Your task to perform on an android device: Set the phone to "Do not disturb". Image 0: 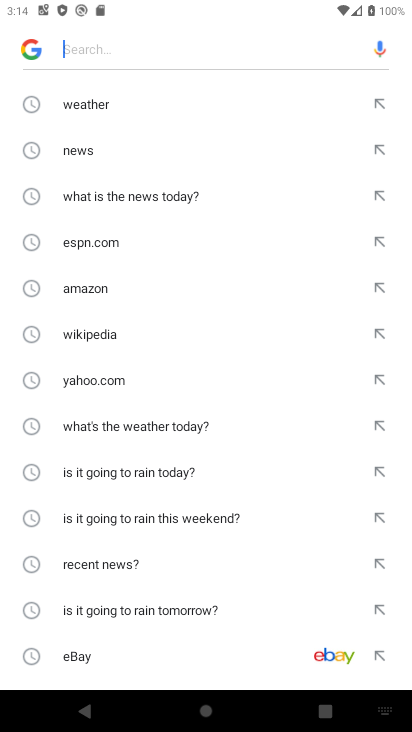
Step 0: press back button
Your task to perform on an android device: Set the phone to "Do not disturb". Image 1: 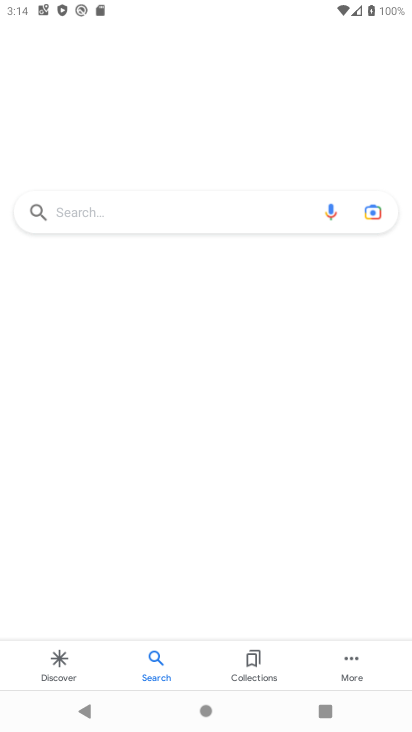
Step 1: press home button
Your task to perform on an android device: Set the phone to "Do not disturb". Image 2: 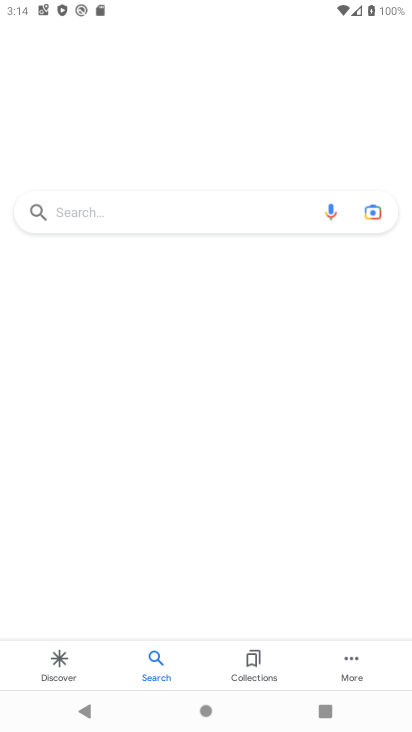
Step 2: press home button
Your task to perform on an android device: Set the phone to "Do not disturb". Image 3: 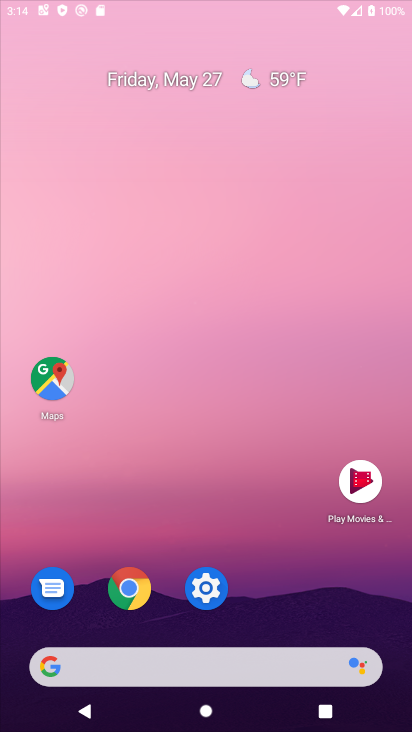
Step 3: press home button
Your task to perform on an android device: Set the phone to "Do not disturb". Image 4: 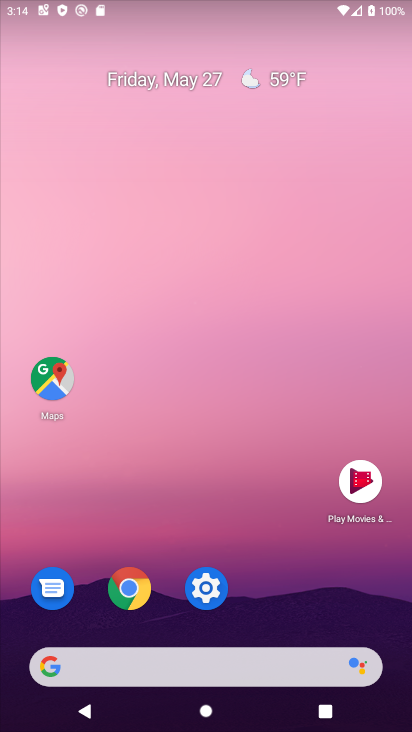
Step 4: press home button
Your task to perform on an android device: Set the phone to "Do not disturb". Image 5: 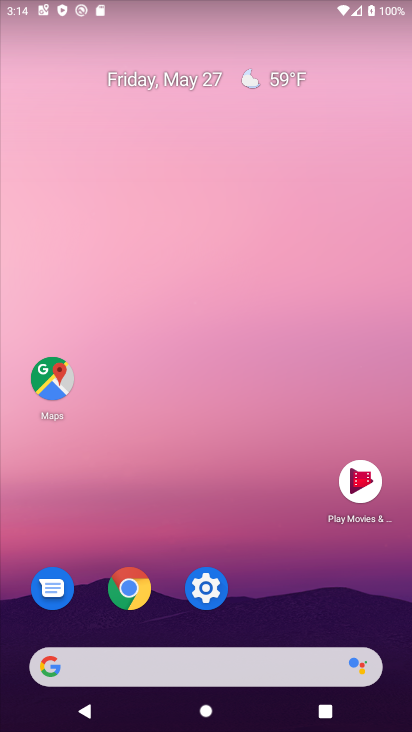
Step 5: drag from (211, 495) to (113, 84)
Your task to perform on an android device: Set the phone to "Do not disturb". Image 6: 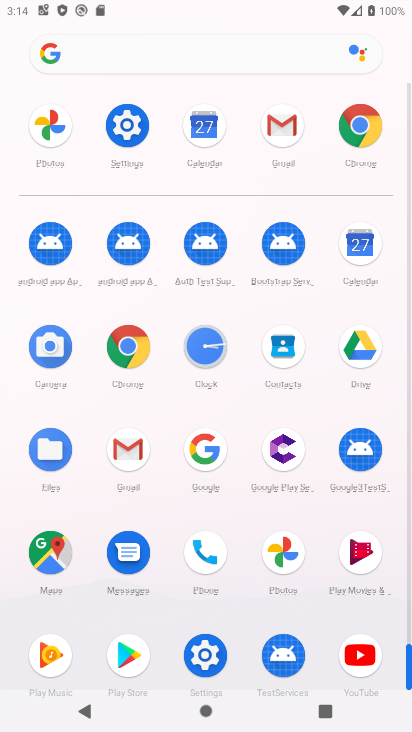
Step 6: click (127, 142)
Your task to perform on an android device: Set the phone to "Do not disturb". Image 7: 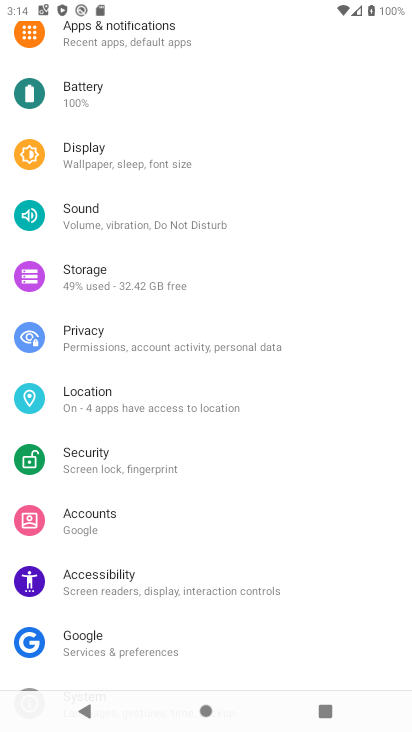
Step 7: press back button
Your task to perform on an android device: Set the phone to "Do not disturb". Image 8: 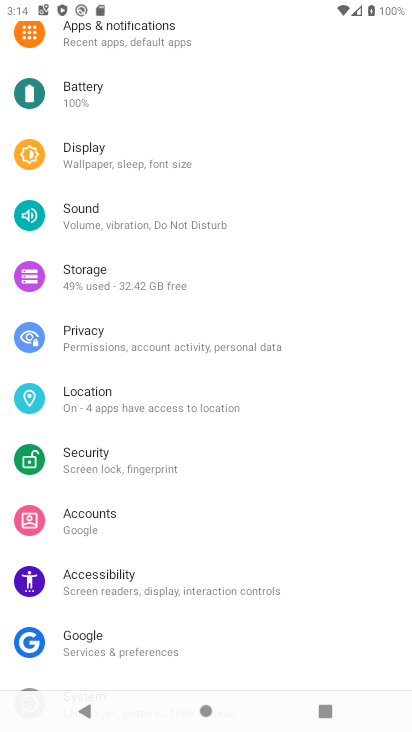
Step 8: press back button
Your task to perform on an android device: Set the phone to "Do not disturb". Image 9: 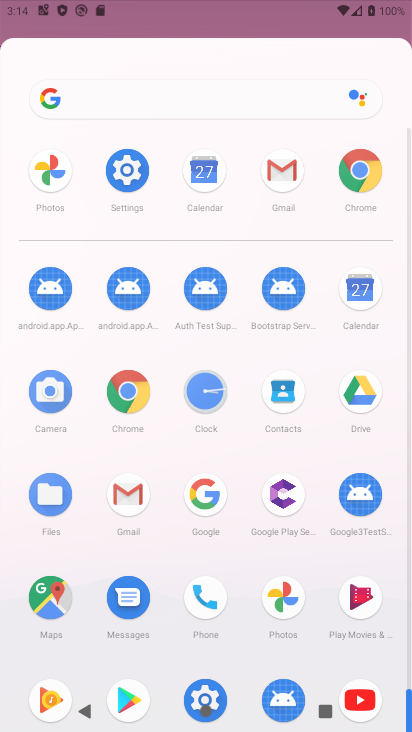
Step 9: press back button
Your task to perform on an android device: Set the phone to "Do not disturb". Image 10: 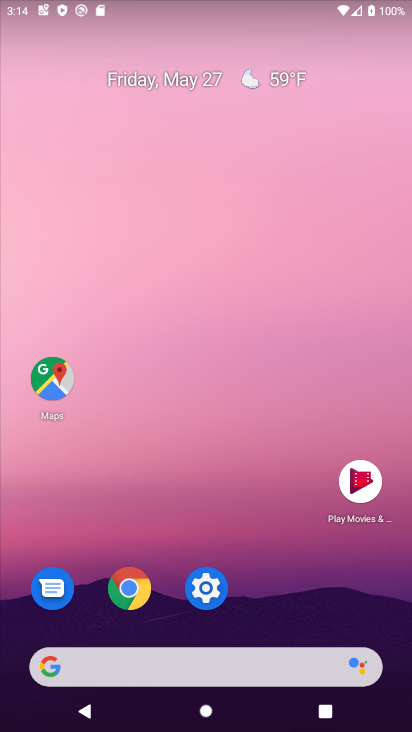
Step 10: drag from (221, 245) to (155, 11)
Your task to perform on an android device: Set the phone to "Do not disturb". Image 11: 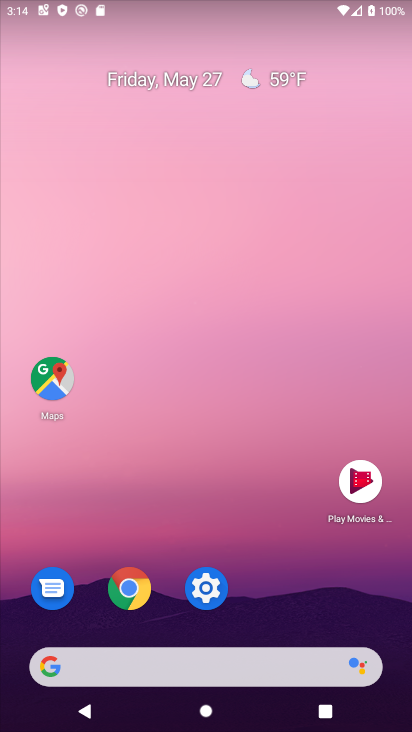
Step 11: drag from (135, 139) to (102, 9)
Your task to perform on an android device: Set the phone to "Do not disturb". Image 12: 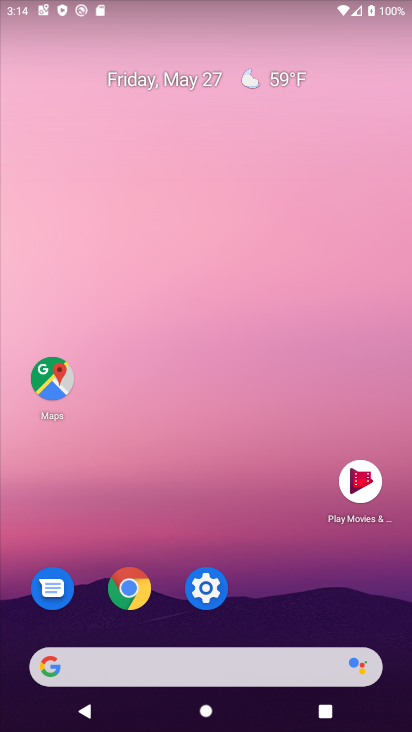
Step 12: drag from (197, 304) to (110, 62)
Your task to perform on an android device: Set the phone to "Do not disturb". Image 13: 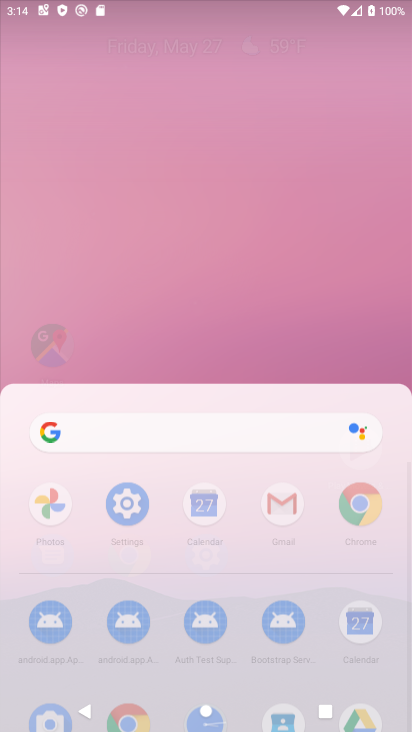
Step 13: drag from (214, 462) to (88, 14)
Your task to perform on an android device: Set the phone to "Do not disturb". Image 14: 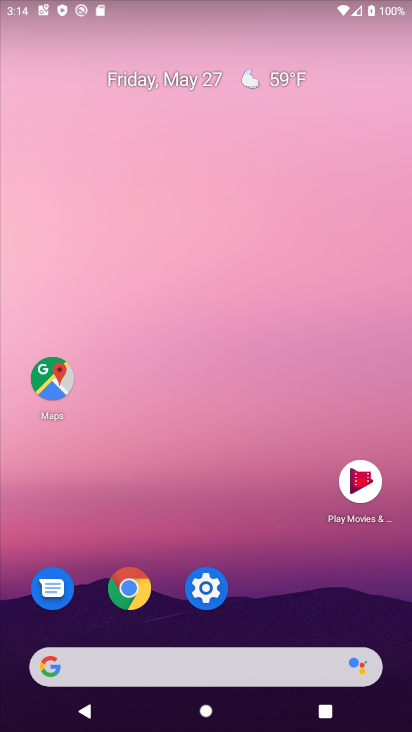
Step 14: drag from (163, 168) to (72, 0)
Your task to perform on an android device: Set the phone to "Do not disturb". Image 15: 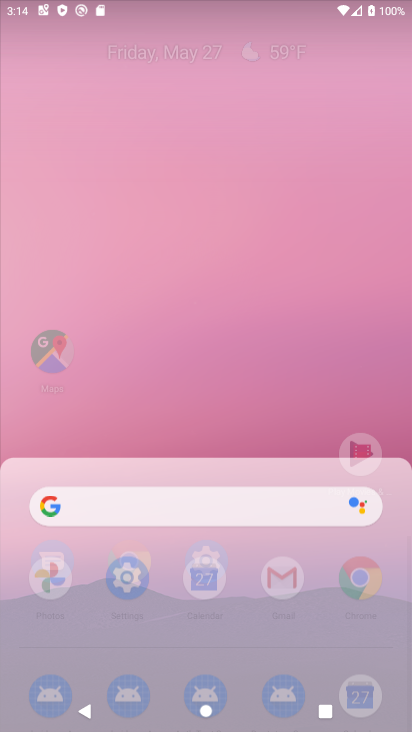
Step 15: drag from (193, 427) to (43, 32)
Your task to perform on an android device: Set the phone to "Do not disturb". Image 16: 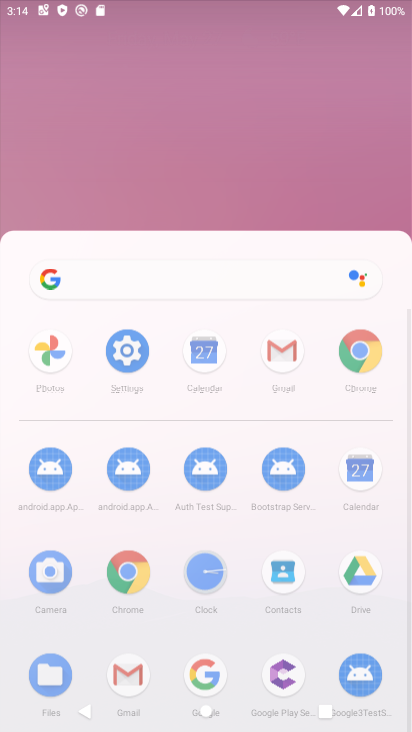
Step 16: click (59, 16)
Your task to perform on an android device: Set the phone to "Do not disturb". Image 17: 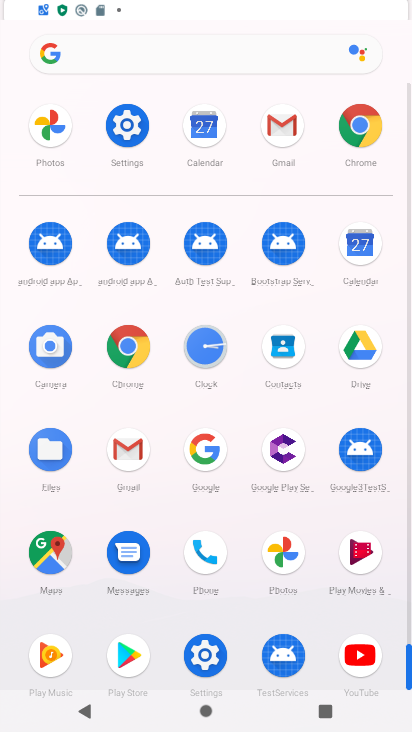
Step 17: drag from (161, 238) to (90, 35)
Your task to perform on an android device: Set the phone to "Do not disturb". Image 18: 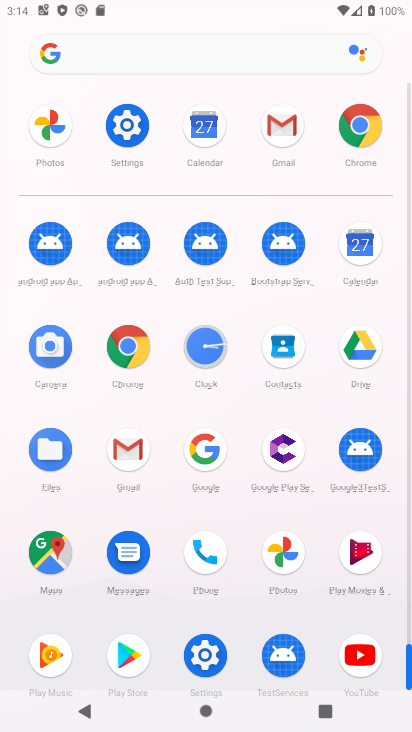
Step 18: click (208, 658)
Your task to perform on an android device: Set the phone to "Do not disturb". Image 19: 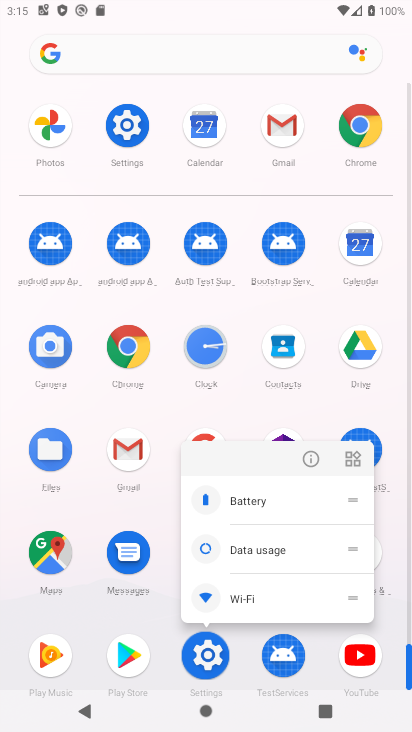
Step 19: click (205, 659)
Your task to perform on an android device: Set the phone to "Do not disturb". Image 20: 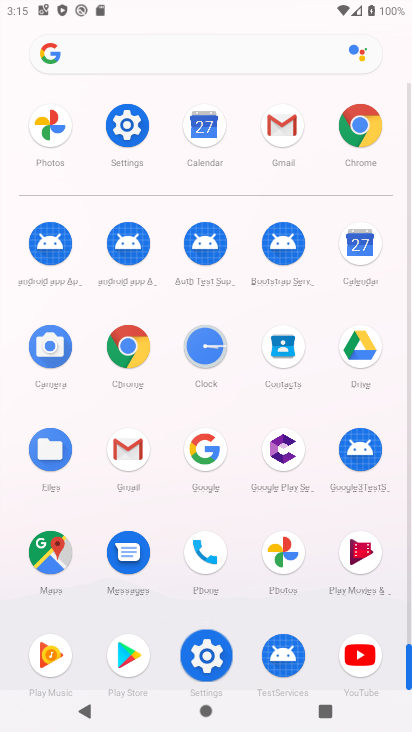
Step 20: click (202, 658)
Your task to perform on an android device: Set the phone to "Do not disturb". Image 21: 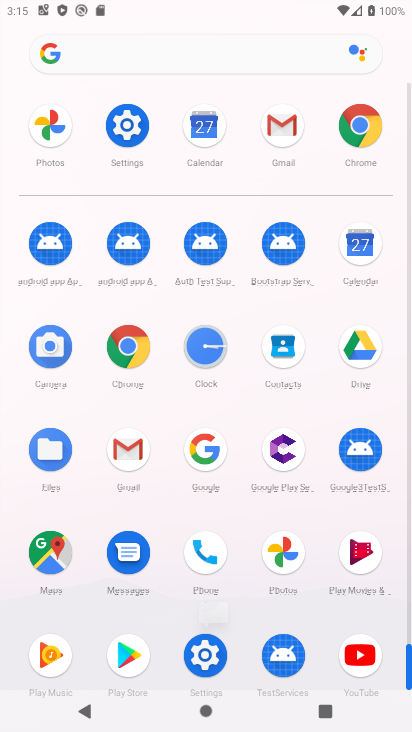
Step 21: click (196, 658)
Your task to perform on an android device: Set the phone to "Do not disturb". Image 22: 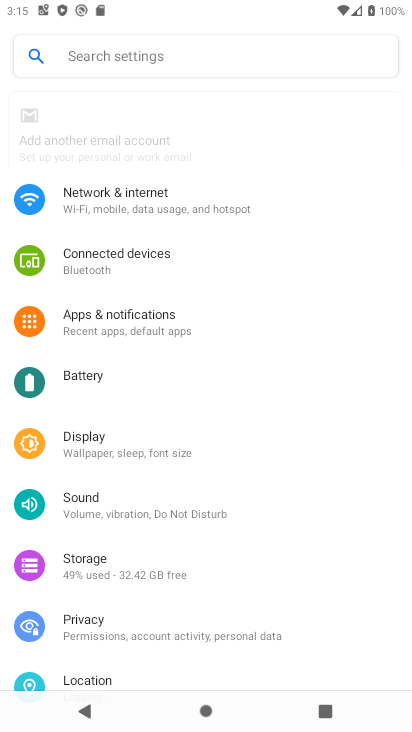
Step 22: click (199, 658)
Your task to perform on an android device: Set the phone to "Do not disturb". Image 23: 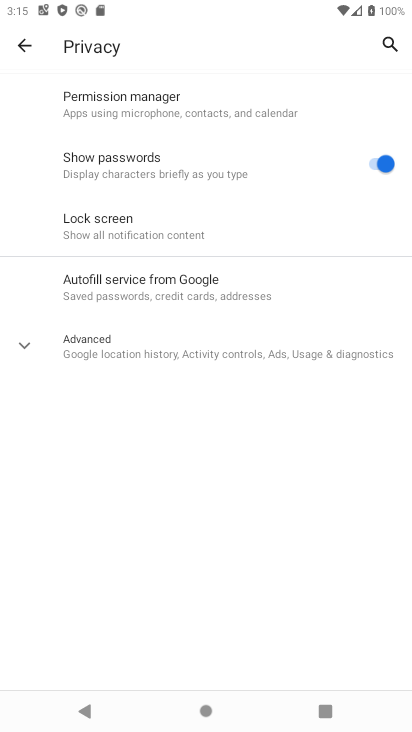
Step 23: click (22, 45)
Your task to perform on an android device: Set the phone to "Do not disturb". Image 24: 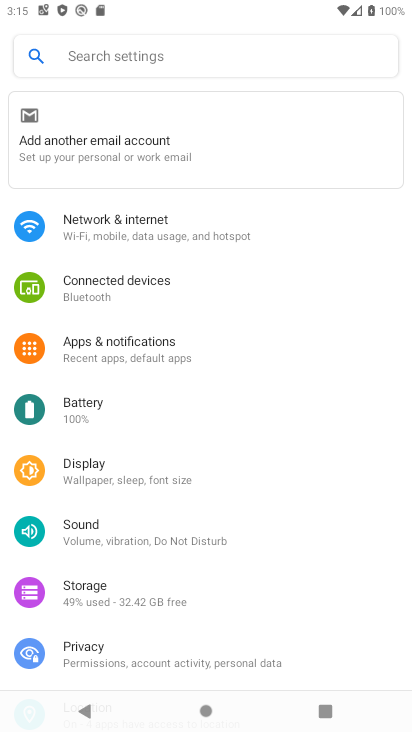
Step 24: click (96, 538)
Your task to perform on an android device: Set the phone to "Do not disturb". Image 25: 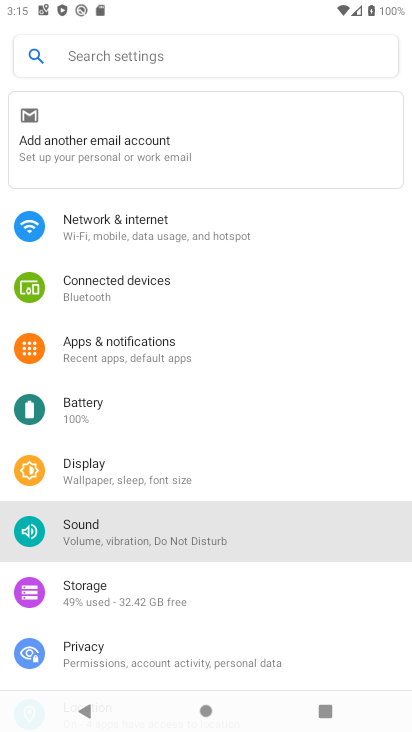
Step 25: click (96, 538)
Your task to perform on an android device: Set the phone to "Do not disturb". Image 26: 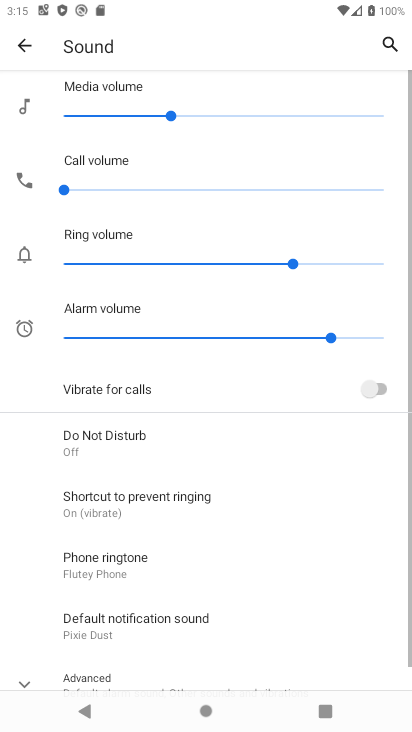
Step 26: click (97, 544)
Your task to perform on an android device: Set the phone to "Do not disturb". Image 27: 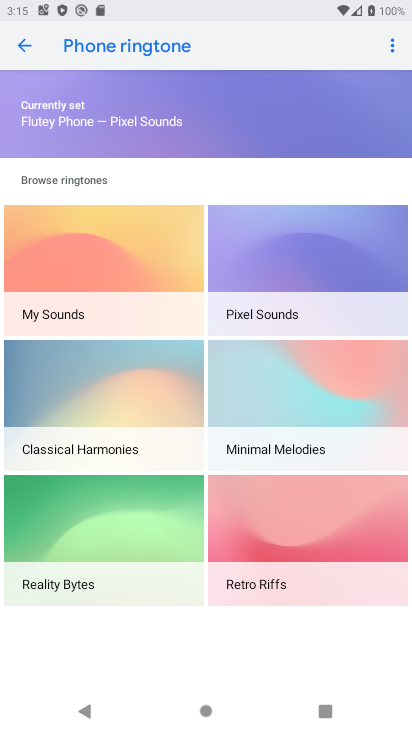
Step 27: click (22, 46)
Your task to perform on an android device: Set the phone to "Do not disturb". Image 28: 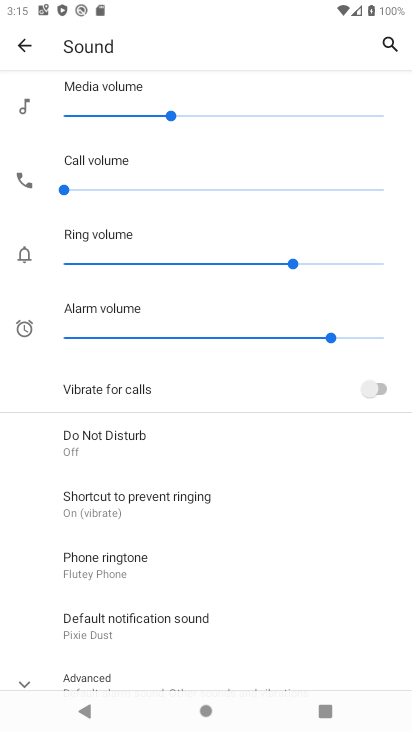
Step 28: click (86, 430)
Your task to perform on an android device: Set the phone to "Do not disturb". Image 29: 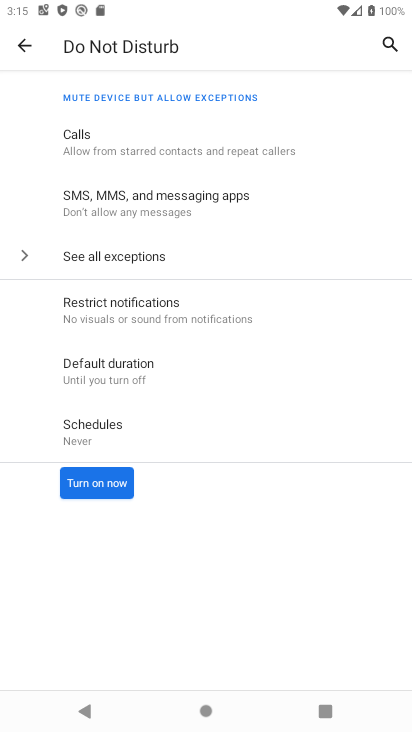
Step 29: click (92, 467)
Your task to perform on an android device: Set the phone to "Do not disturb". Image 30: 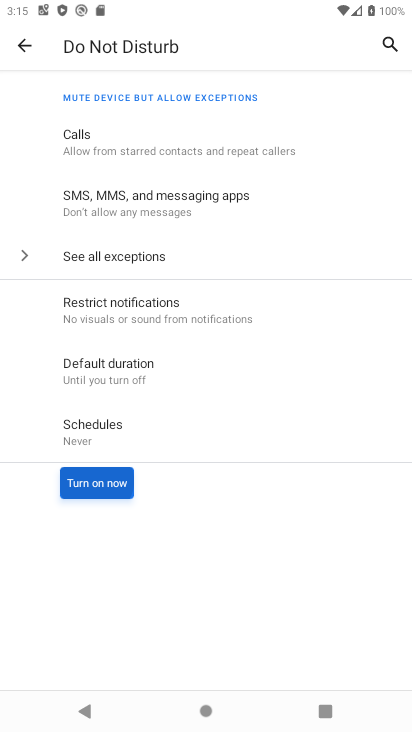
Step 30: click (94, 493)
Your task to perform on an android device: Set the phone to "Do not disturb". Image 31: 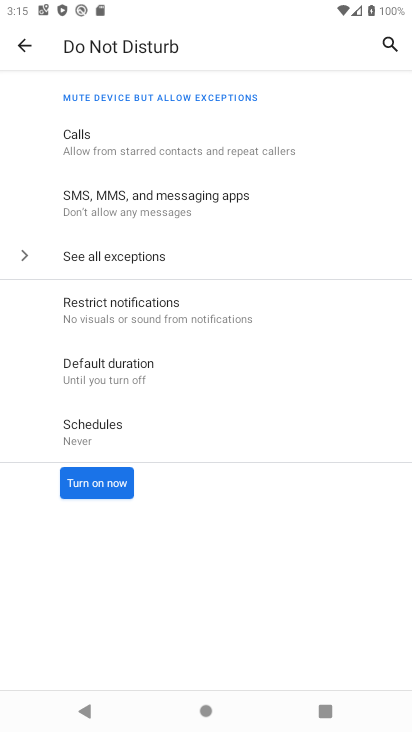
Step 31: click (104, 480)
Your task to perform on an android device: Set the phone to "Do not disturb". Image 32: 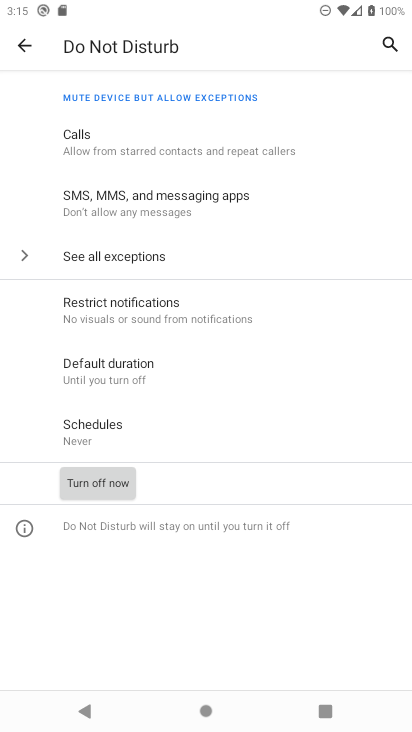
Step 32: task complete